Your task to perform on an android device: find snoozed emails in the gmail app Image 0: 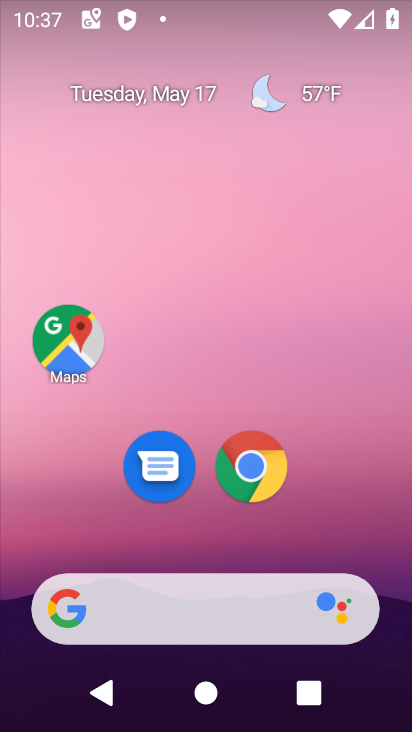
Step 0: drag from (191, 560) to (295, 42)
Your task to perform on an android device: find snoozed emails in the gmail app Image 1: 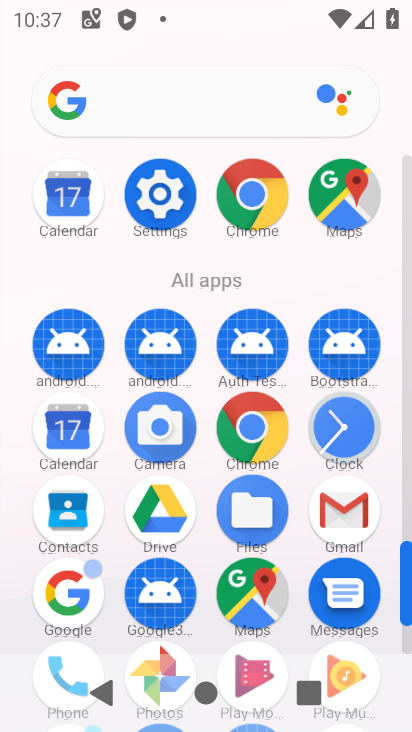
Step 1: click (344, 520)
Your task to perform on an android device: find snoozed emails in the gmail app Image 2: 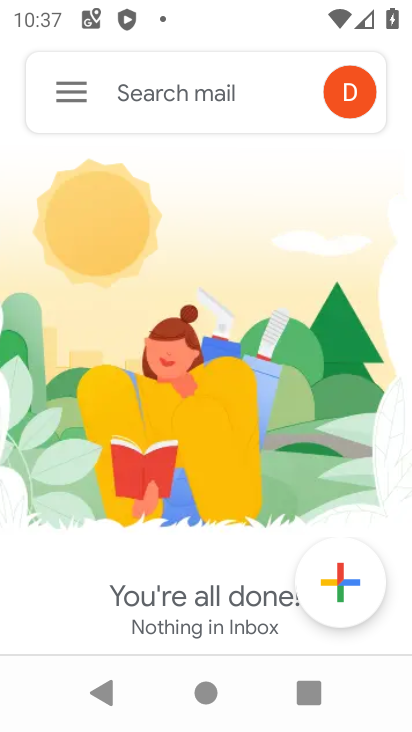
Step 2: click (56, 88)
Your task to perform on an android device: find snoozed emails in the gmail app Image 3: 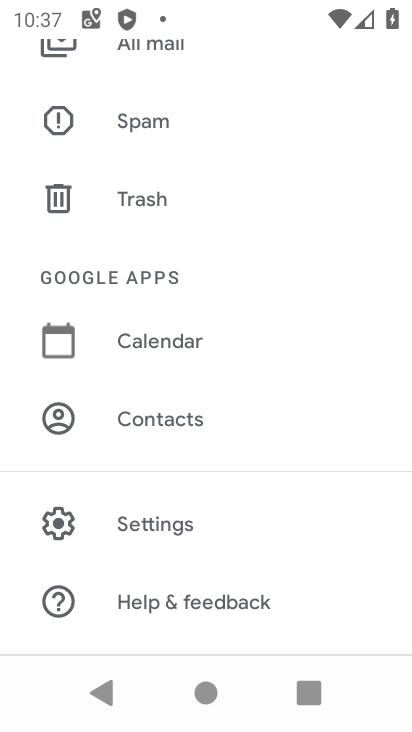
Step 3: drag from (199, 427) to (171, 60)
Your task to perform on an android device: find snoozed emails in the gmail app Image 4: 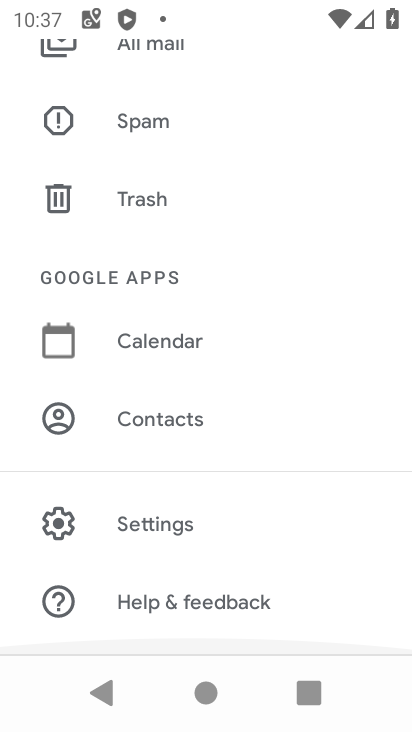
Step 4: drag from (167, 99) to (177, 585)
Your task to perform on an android device: find snoozed emails in the gmail app Image 5: 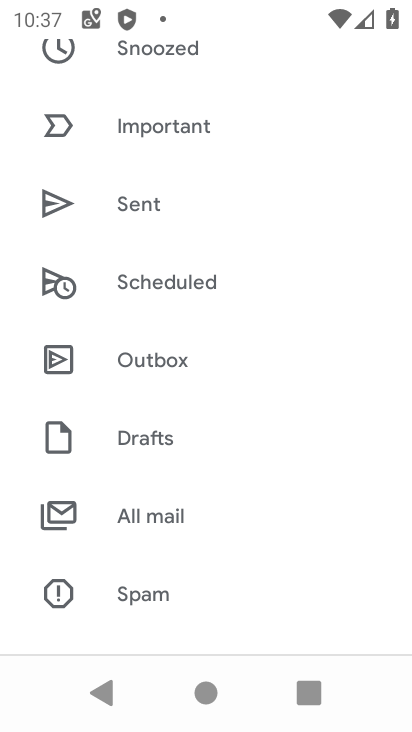
Step 5: click (151, 54)
Your task to perform on an android device: find snoozed emails in the gmail app Image 6: 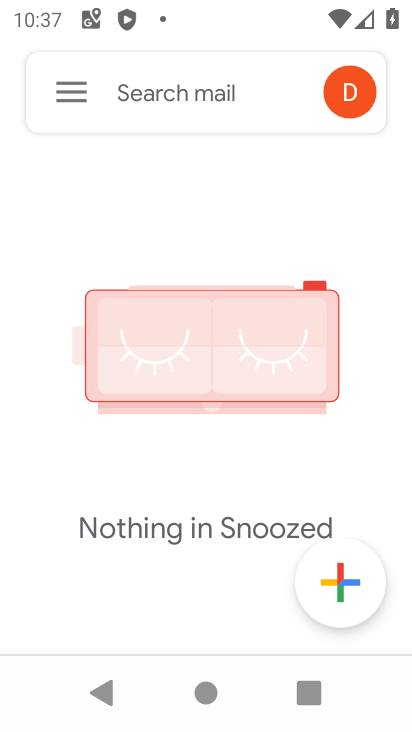
Step 6: task complete